Your task to perform on an android device: remove spam from my inbox in the gmail app Image 0: 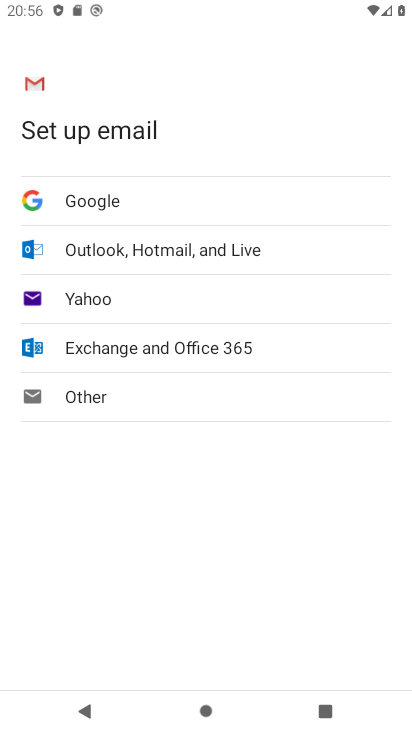
Step 0: press home button
Your task to perform on an android device: remove spam from my inbox in the gmail app Image 1: 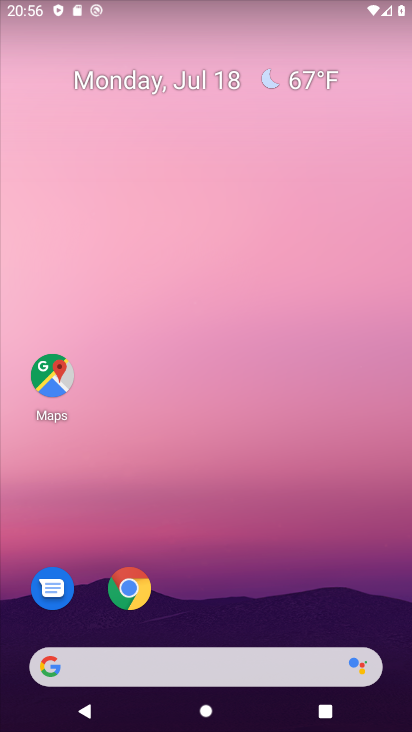
Step 1: drag from (349, 599) to (321, 161)
Your task to perform on an android device: remove spam from my inbox in the gmail app Image 2: 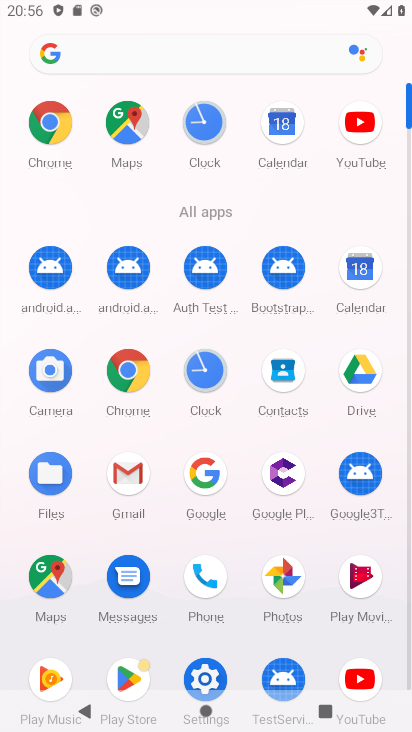
Step 2: click (127, 471)
Your task to perform on an android device: remove spam from my inbox in the gmail app Image 3: 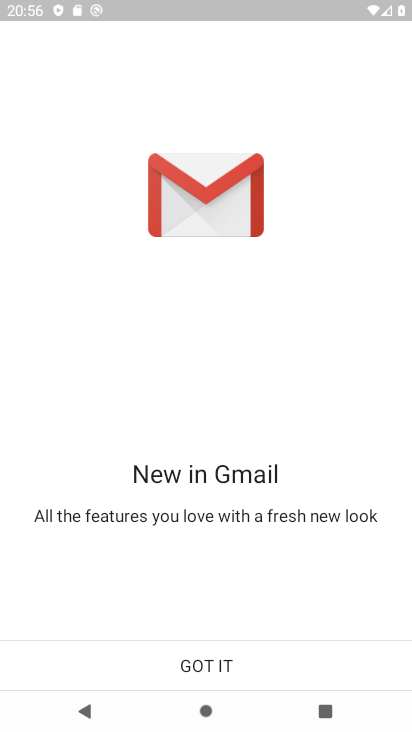
Step 3: click (214, 673)
Your task to perform on an android device: remove spam from my inbox in the gmail app Image 4: 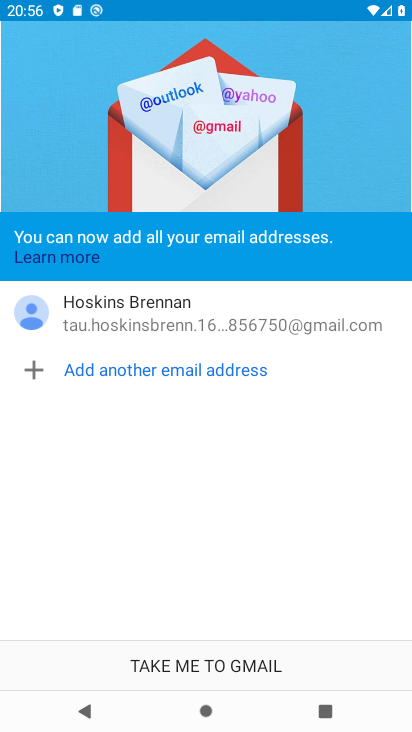
Step 4: click (207, 670)
Your task to perform on an android device: remove spam from my inbox in the gmail app Image 5: 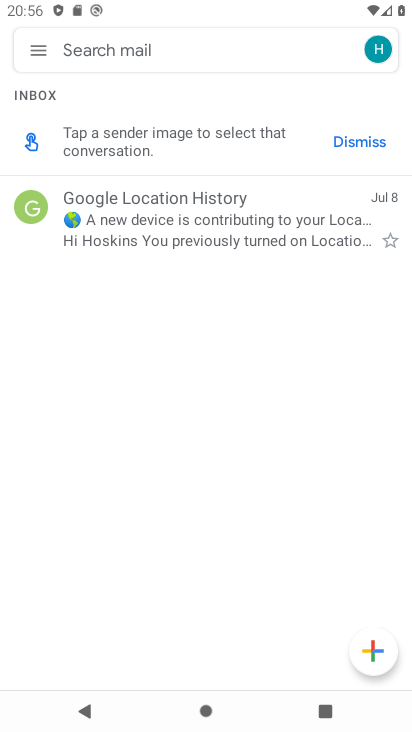
Step 5: click (33, 41)
Your task to perform on an android device: remove spam from my inbox in the gmail app Image 6: 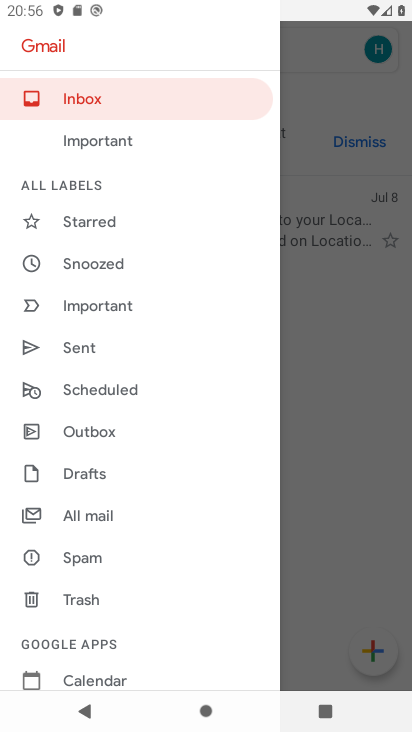
Step 6: click (86, 555)
Your task to perform on an android device: remove spam from my inbox in the gmail app Image 7: 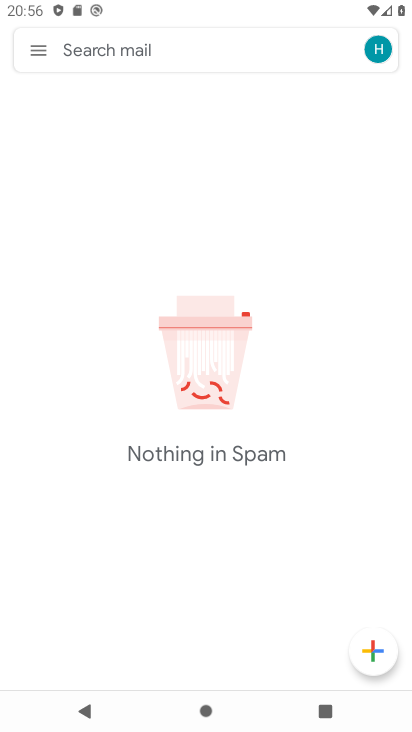
Step 7: task complete